Your task to perform on an android device: Open settings on Google Maps Image 0: 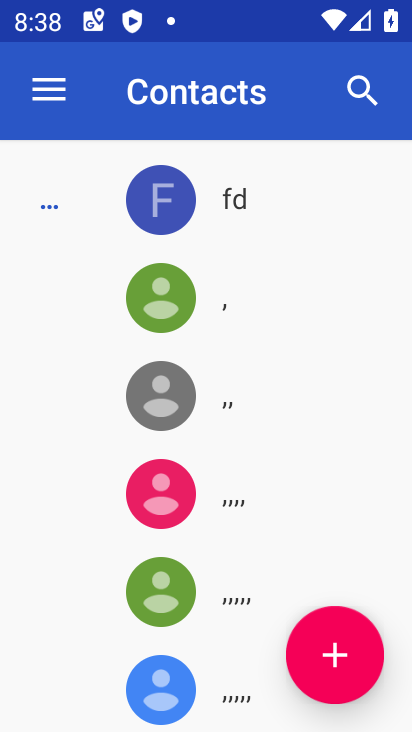
Step 0: press home button
Your task to perform on an android device: Open settings on Google Maps Image 1: 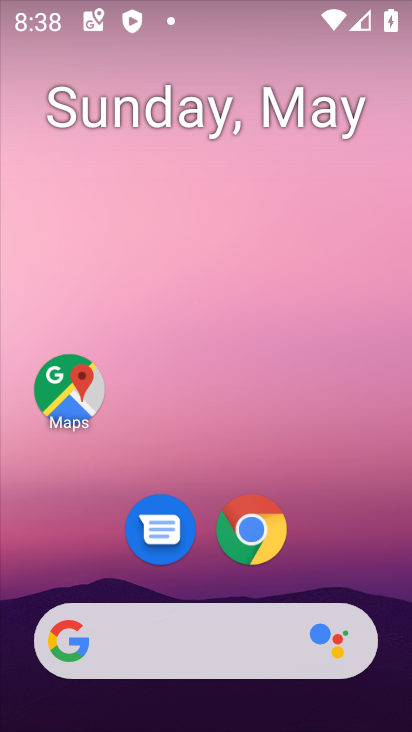
Step 1: click (70, 391)
Your task to perform on an android device: Open settings on Google Maps Image 2: 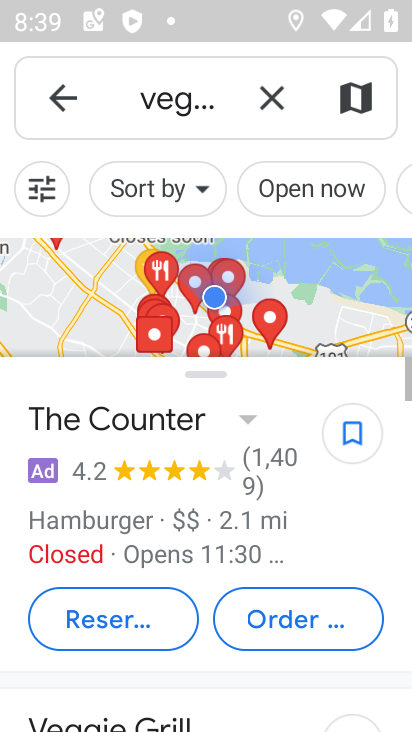
Step 2: click (269, 104)
Your task to perform on an android device: Open settings on Google Maps Image 3: 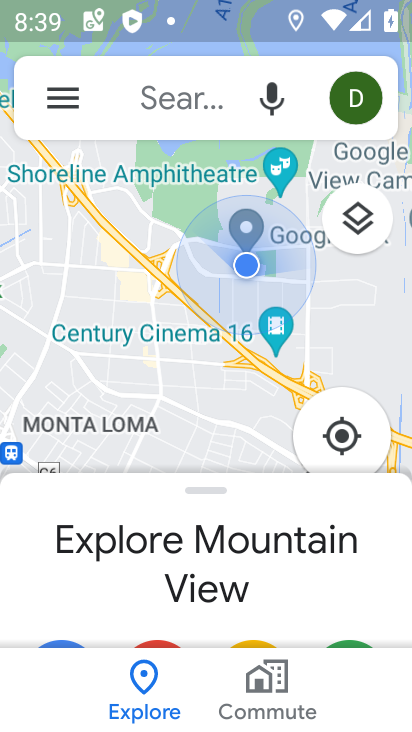
Step 3: click (59, 100)
Your task to perform on an android device: Open settings on Google Maps Image 4: 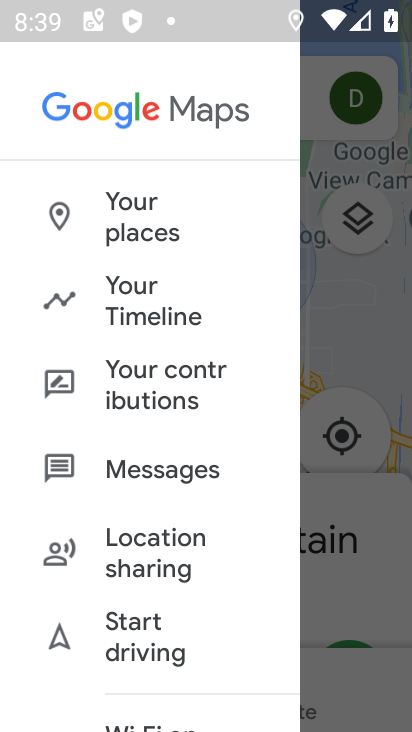
Step 4: drag from (221, 633) to (205, 133)
Your task to perform on an android device: Open settings on Google Maps Image 5: 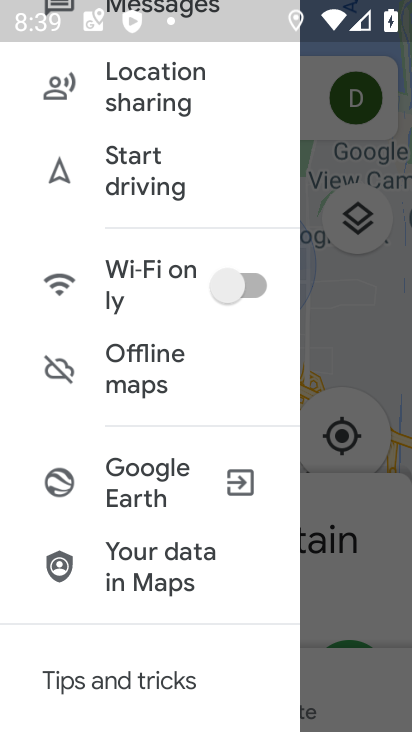
Step 5: drag from (200, 607) to (185, 106)
Your task to perform on an android device: Open settings on Google Maps Image 6: 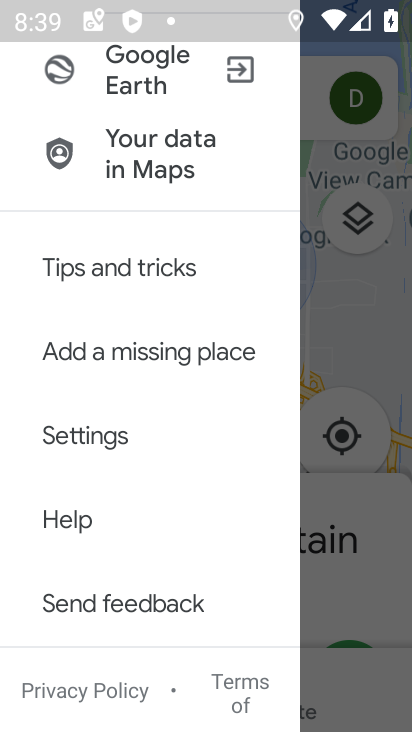
Step 6: click (84, 436)
Your task to perform on an android device: Open settings on Google Maps Image 7: 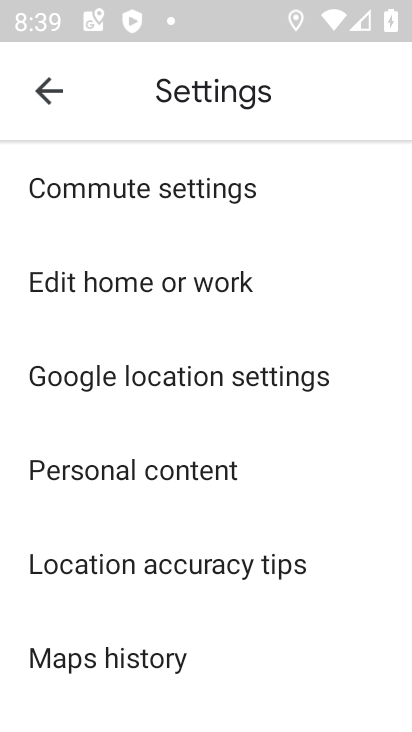
Step 7: task complete